Your task to perform on an android device: delete a single message in the gmail app Image 0: 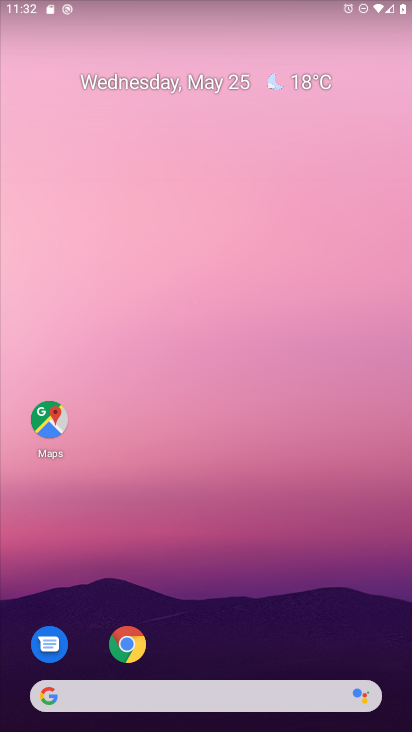
Step 0: drag from (218, 663) to (225, 9)
Your task to perform on an android device: delete a single message in the gmail app Image 1: 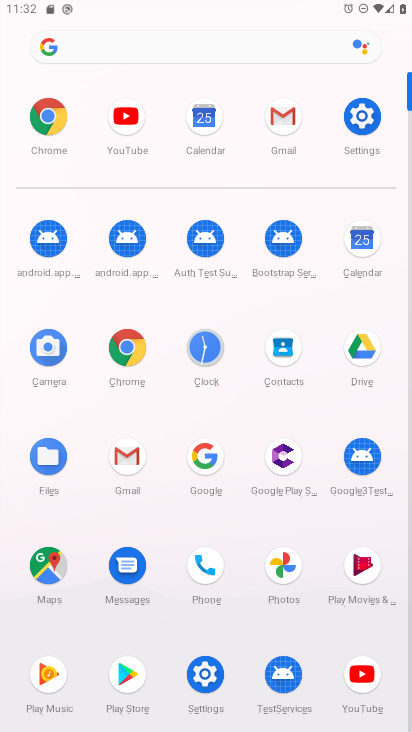
Step 1: click (283, 107)
Your task to perform on an android device: delete a single message in the gmail app Image 2: 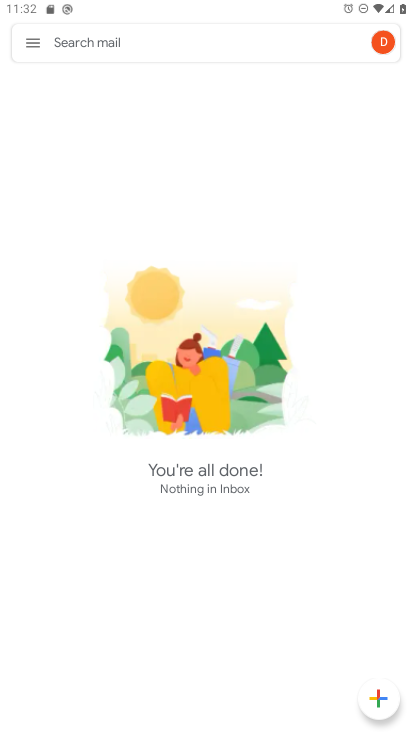
Step 2: task complete